Your task to perform on an android device: show emergency info Image 0: 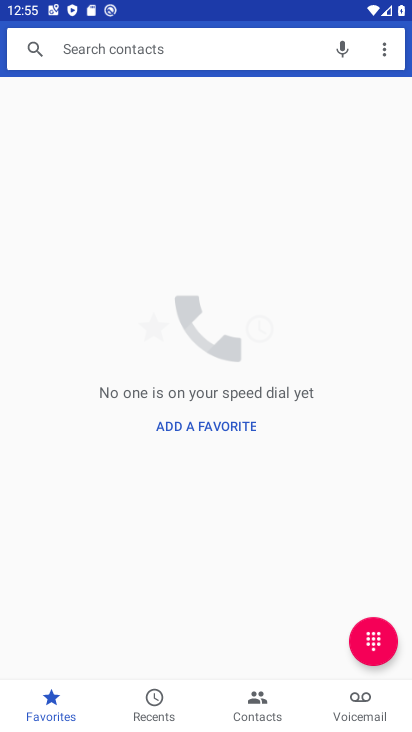
Step 0: press home button
Your task to perform on an android device: show emergency info Image 1: 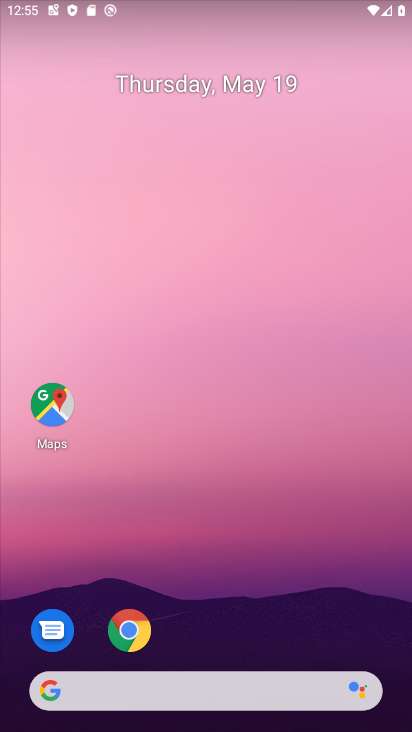
Step 1: drag from (188, 652) to (160, 104)
Your task to perform on an android device: show emergency info Image 2: 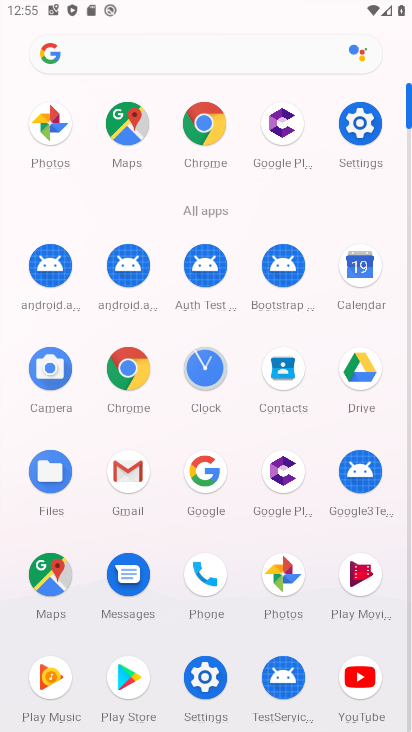
Step 2: click (355, 143)
Your task to perform on an android device: show emergency info Image 3: 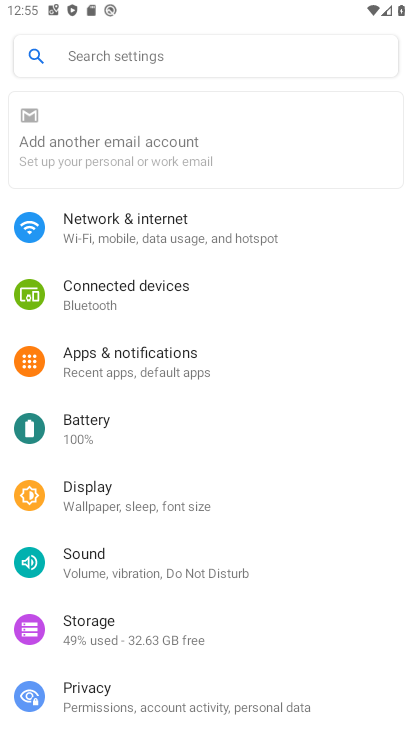
Step 3: drag from (275, 589) to (245, 109)
Your task to perform on an android device: show emergency info Image 4: 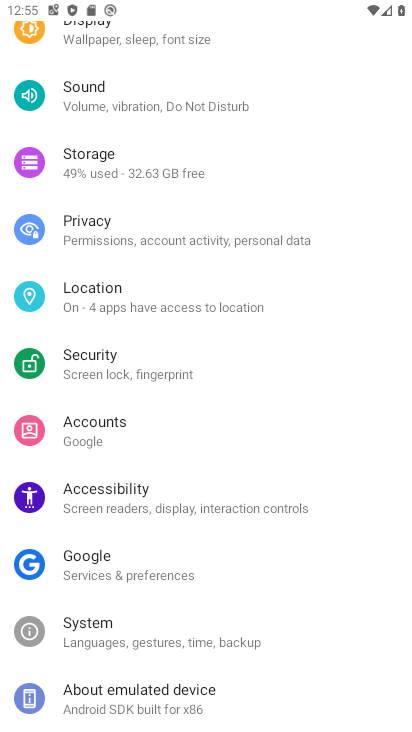
Step 4: drag from (241, 621) to (244, 190)
Your task to perform on an android device: show emergency info Image 5: 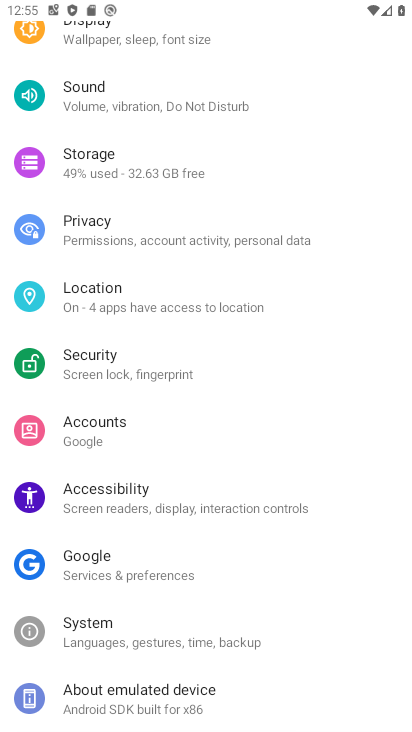
Step 5: click (175, 723)
Your task to perform on an android device: show emergency info Image 6: 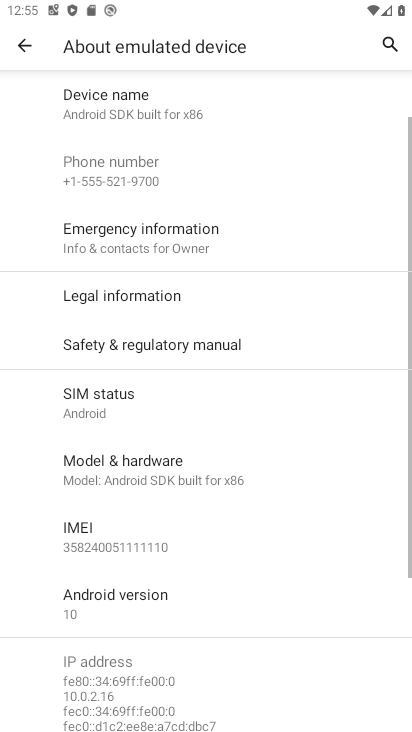
Step 6: click (175, 701)
Your task to perform on an android device: show emergency info Image 7: 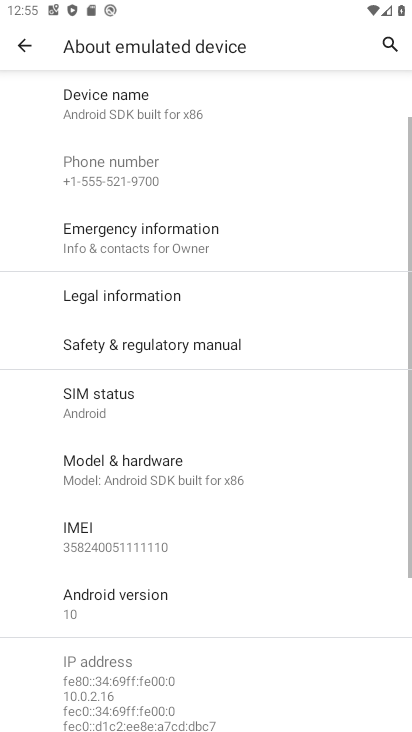
Step 7: click (99, 248)
Your task to perform on an android device: show emergency info Image 8: 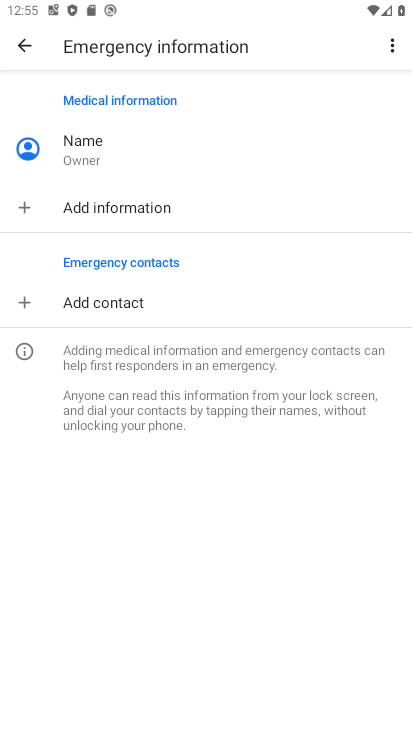
Step 8: task complete